Your task to perform on an android device: Do I have any events today? Image 0: 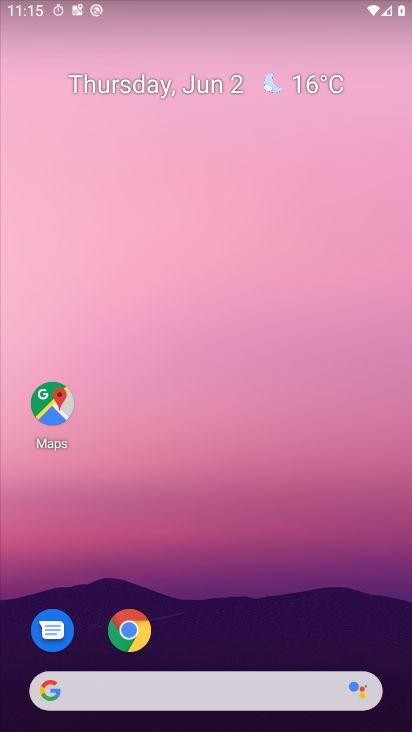
Step 0: click (161, 265)
Your task to perform on an android device: Do I have any events today? Image 1: 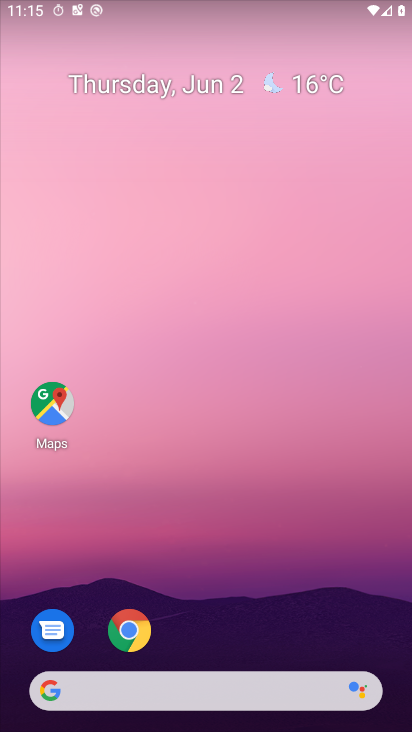
Step 1: drag from (228, 641) to (322, 4)
Your task to perform on an android device: Do I have any events today? Image 2: 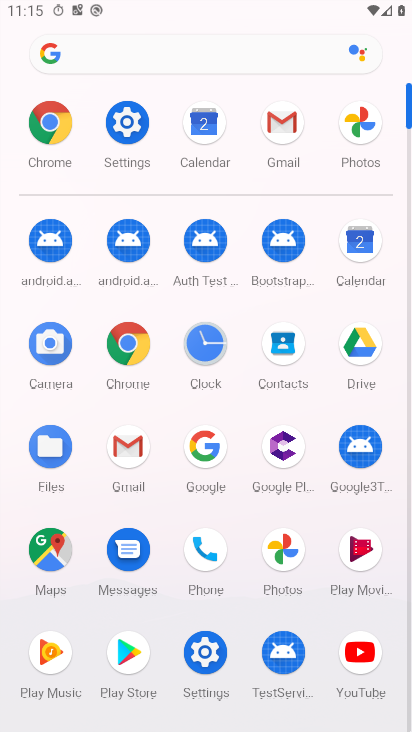
Step 2: click (364, 257)
Your task to perform on an android device: Do I have any events today? Image 3: 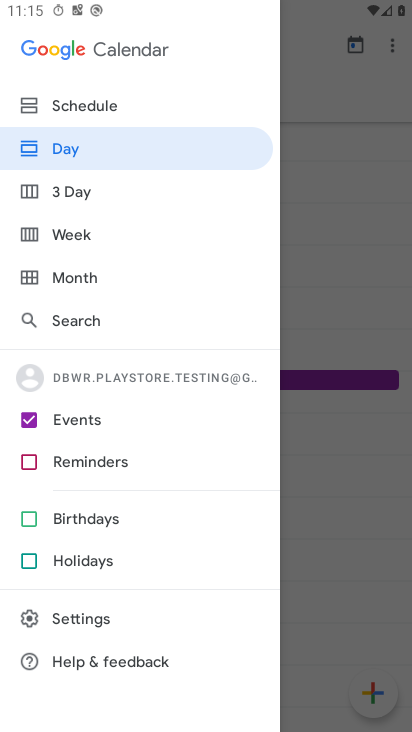
Step 3: drag from (81, 643) to (114, 539)
Your task to perform on an android device: Do I have any events today? Image 4: 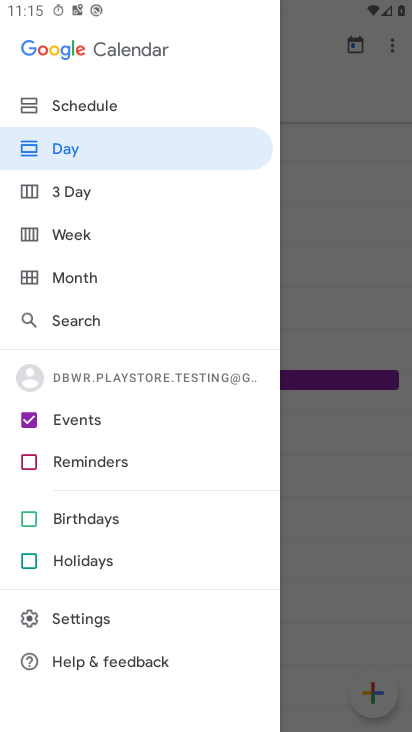
Step 4: click (139, 146)
Your task to perform on an android device: Do I have any events today? Image 5: 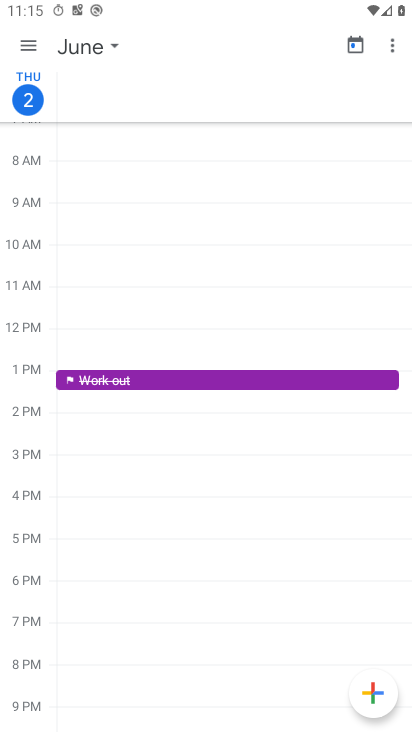
Step 5: task complete